Your task to perform on an android device: When is my next meeting? Image 0: 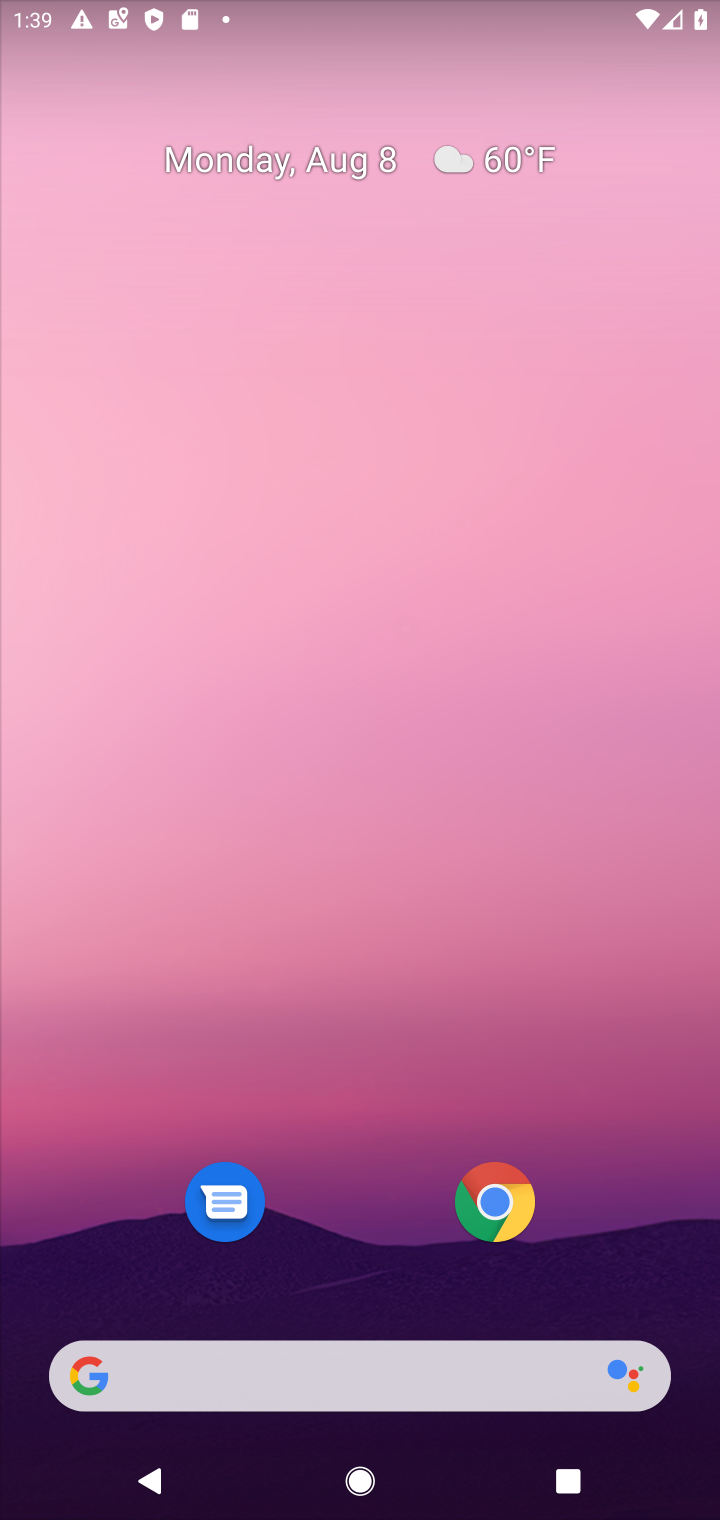
Step 0: press home button
Your task to perform on an android device: When is my next meeting? Image 1: 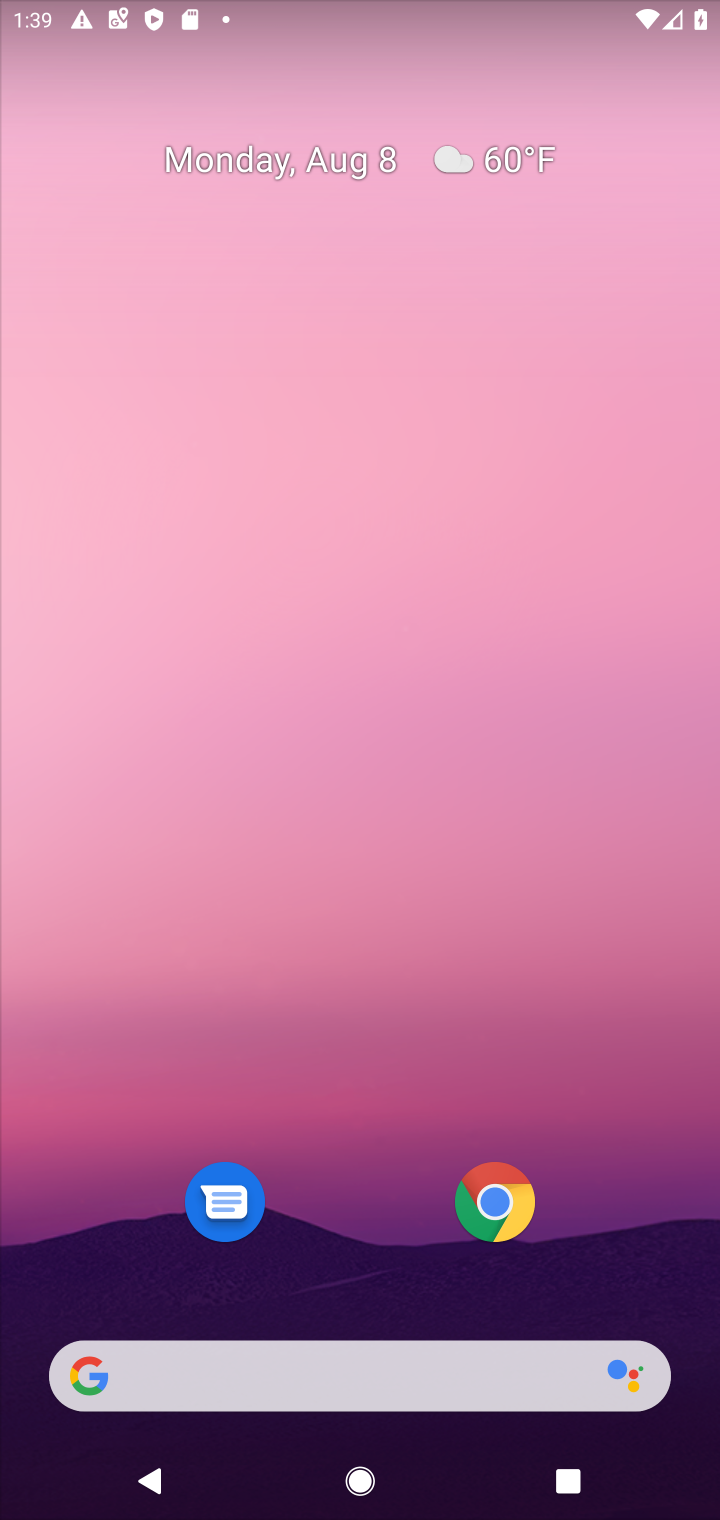
Step 1: drag from (368, 1048) to (460, 344)
Your task to perform on an android device: When is my next meeting? Image 2: 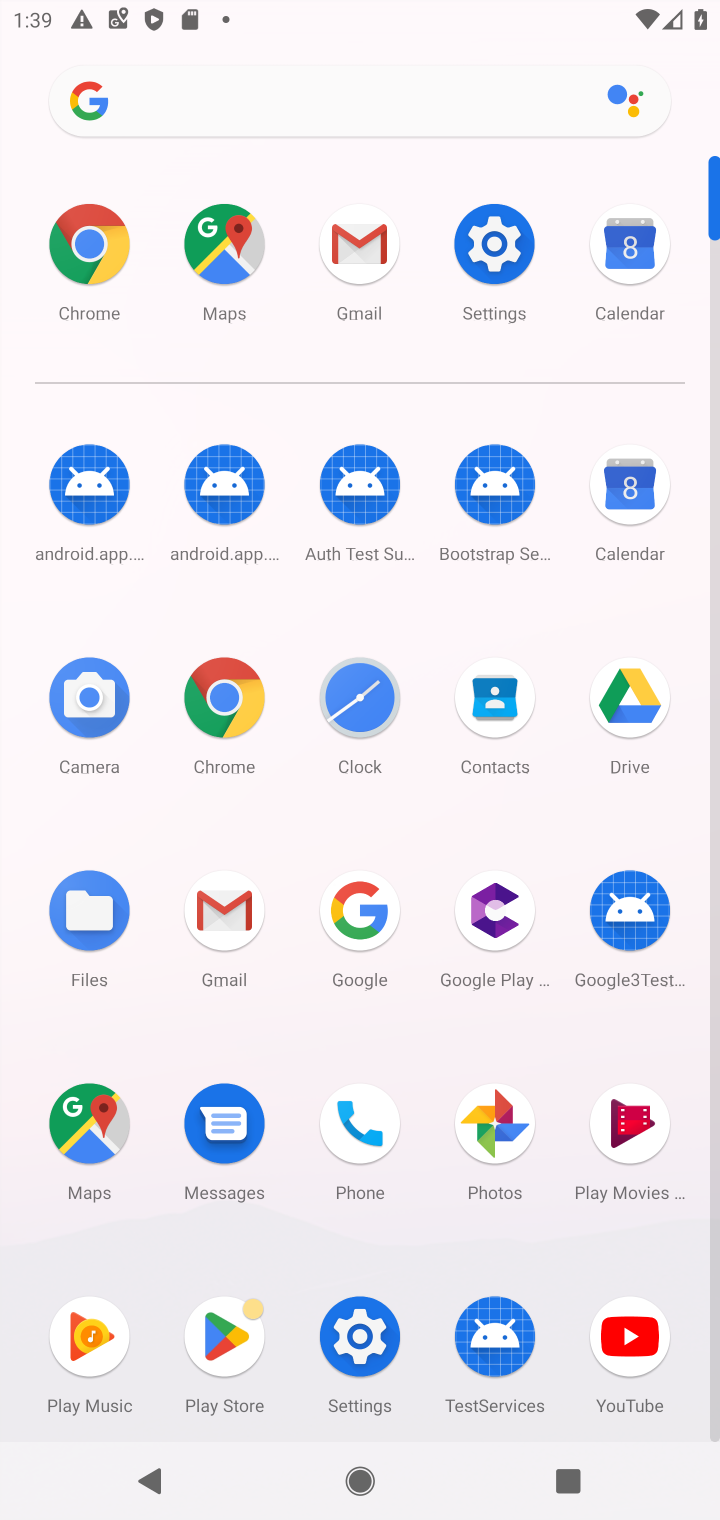
Step 2: click (627, 496)
Your task to perform on an android device: When is my next meeting? Image 3: 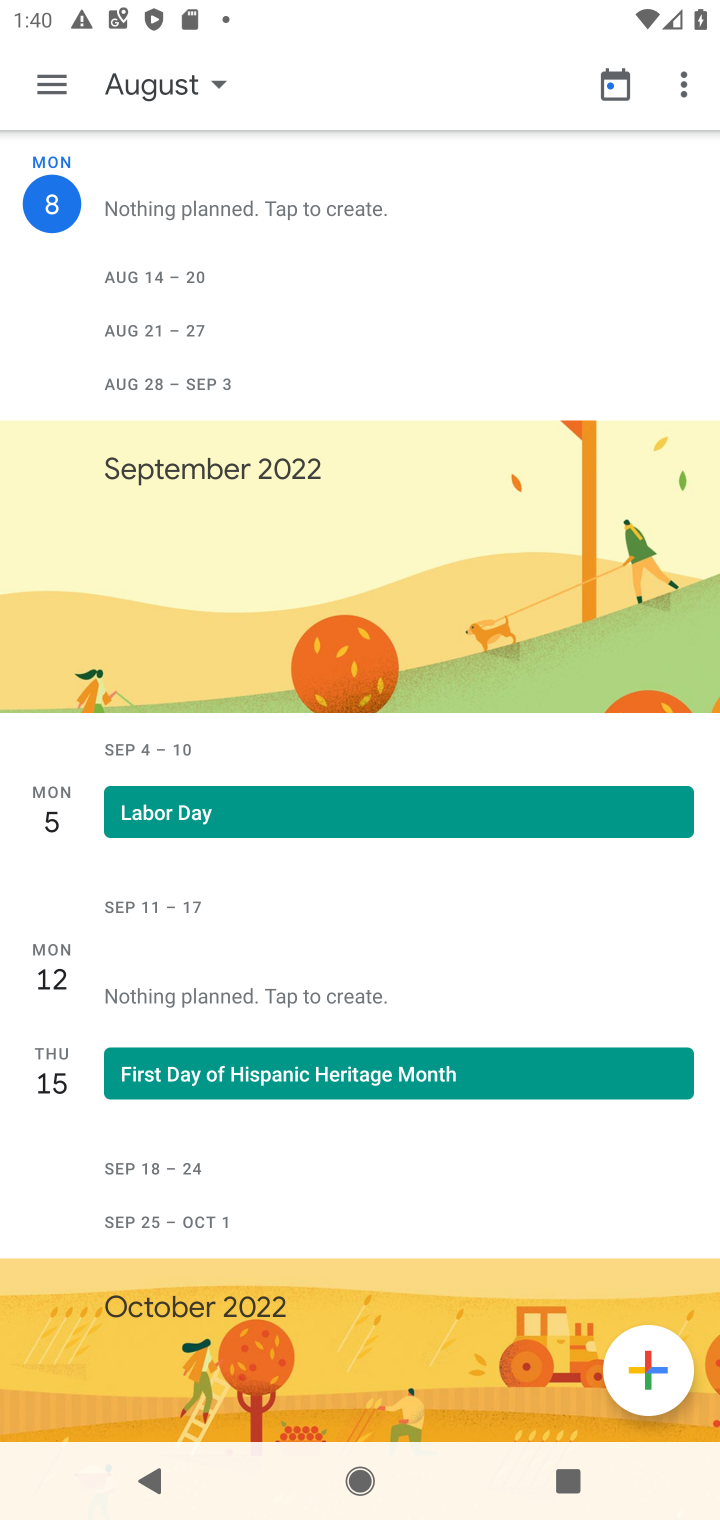
Step 3: task complete